Your task to perform on an android device: Open calendar and show me the third week of next month Image 0: 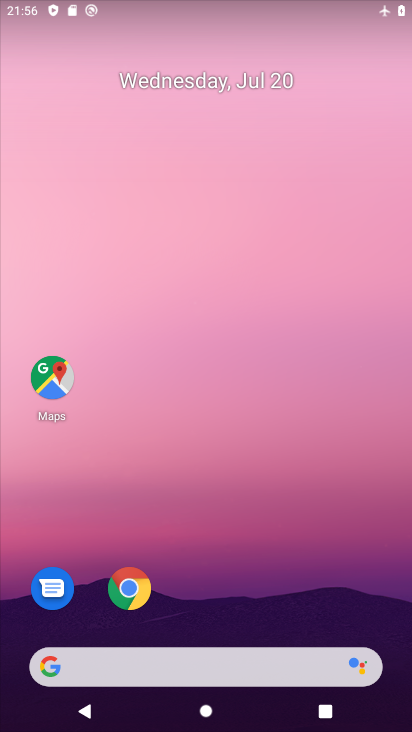
Step 0: drag from (360, 607) to (323, 112)
Your task to perform on an android device: Open calendar and show me the third week of next month Image 1: 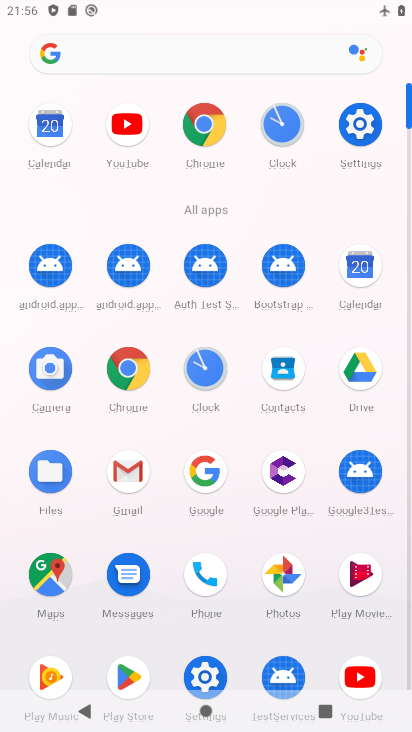
Step 1: click (360, 268)
Your task to perform on an android device: Open calendar and show me the third week of next month Image 2: 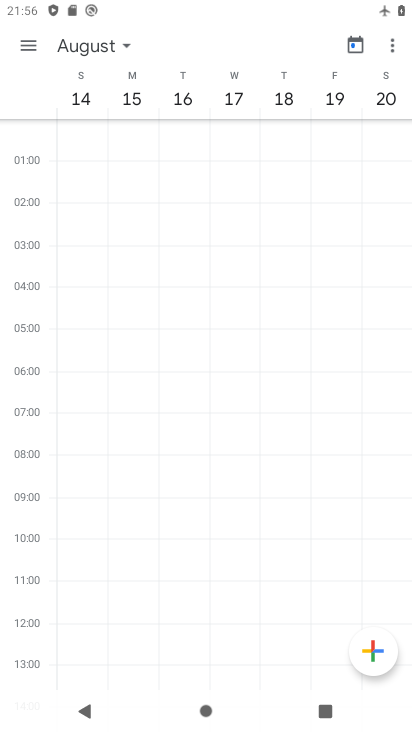
Step 2: click (127, 43)
Your task to perform on an android device: Open calendar and show me the third week of next month Image 3: 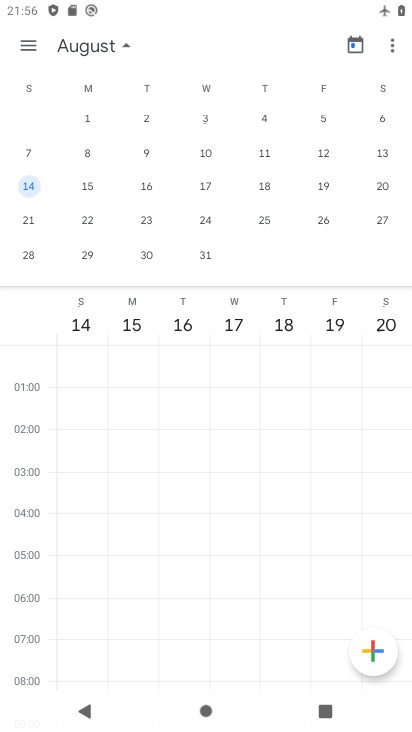
Step 3: click (28, 217)
Your task to perform on an android device: Open calendar and show me the third week of next month Image 4: 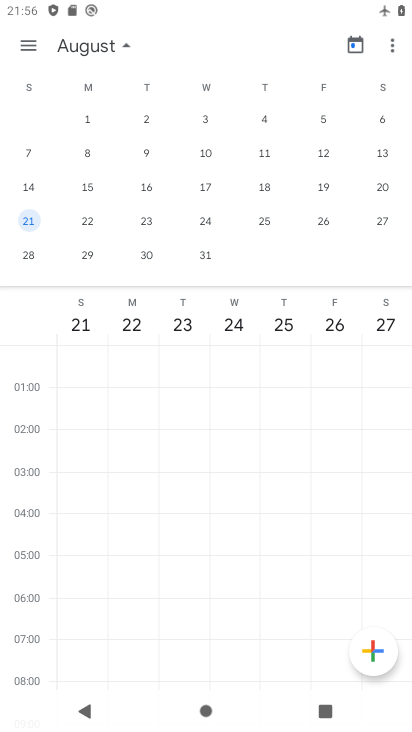
Step 4: task complete